Your task to perform on an android device: Open Yahoo.com Image 0: 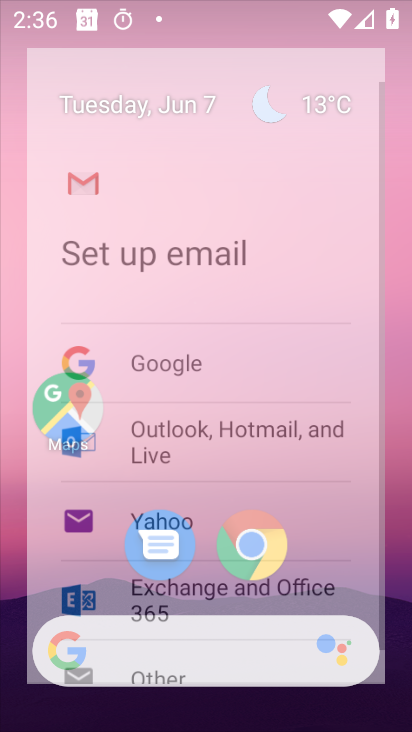
Step 0: drag from (349, 404) to (238, 2)
Your task to perform on an android device: Open Yahoo.com Image 1: 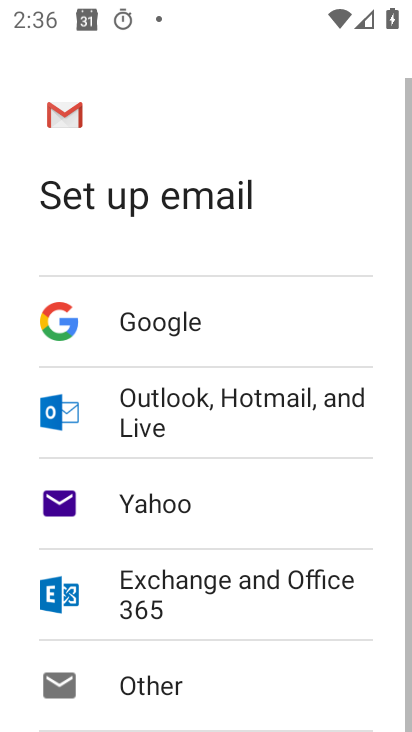
Step 1: press home button
Your task to perform on an android device: Open Yahoo.com Image 2: 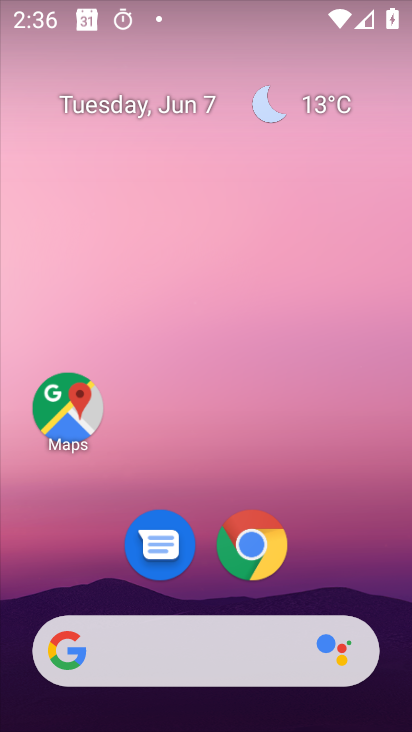
Step 2: click (237, 541)
Your task to perform on an android device: Open Yahoo.com Image 3: 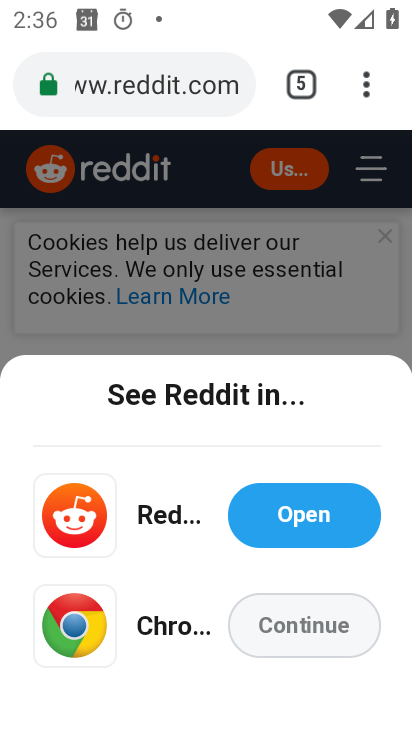
Step 3: click (307, 78)
Your task to perform on an android device: Open Yahoo.com Image 4: 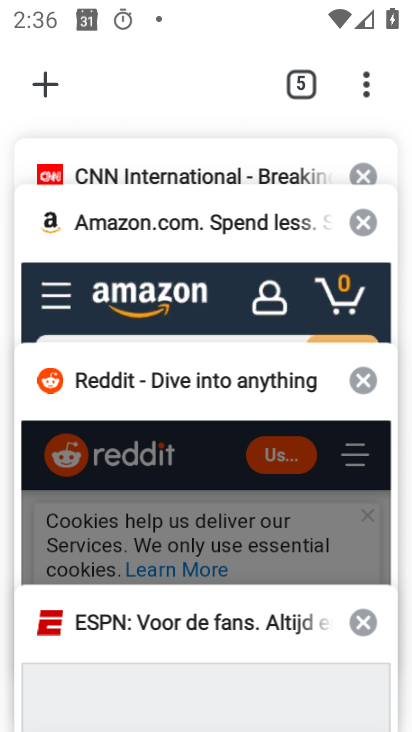
Step 4: drag from (159, 579) to (200, 172)
Your task to perform on an android device: Open Yahoo.com Image 5: 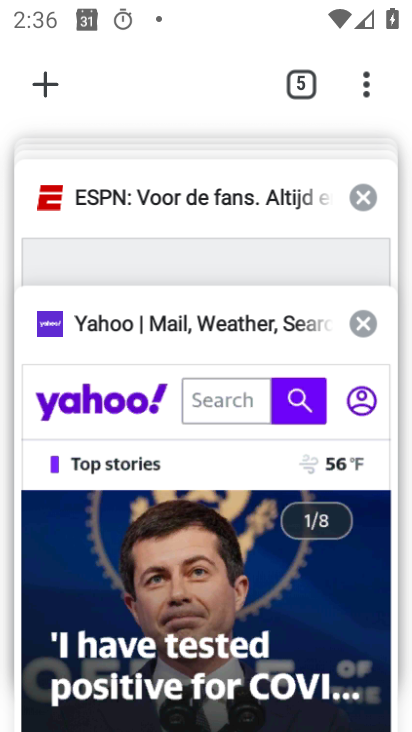
Step 5: click (174, 555)
Your task to perform on an android device: Open Yahoo.com Image 6: 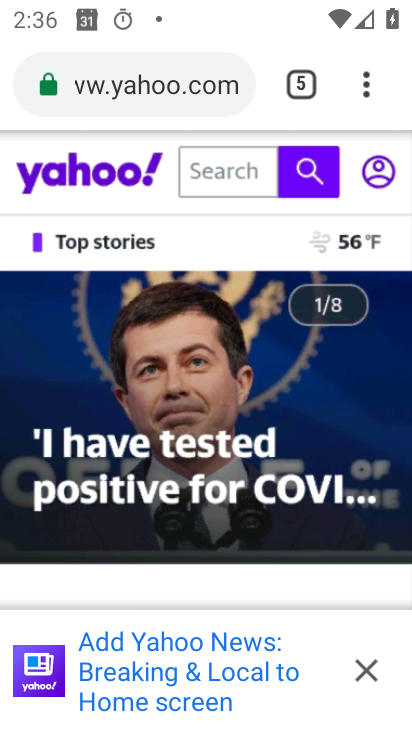
Step 6: task complete